Your task to perform on an android device: change the upload size in google photos Image 0: 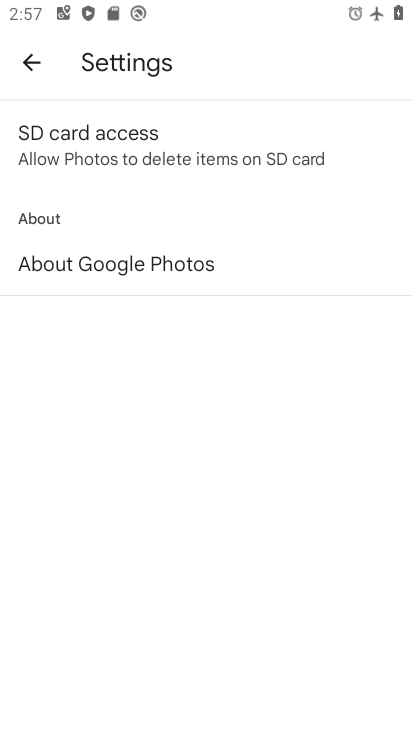
Step 0: press back button
Your task to perform on an android device: change the upload size in google photos Image 1: 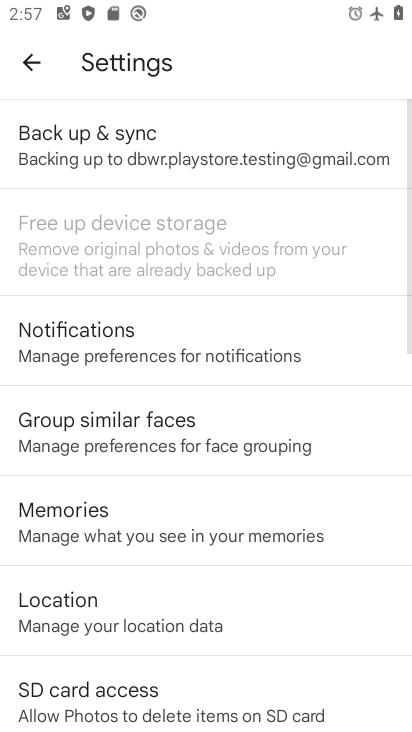
Step 1: press home button
Your task to perform on an android device: change the upload size in google photos Image 2: 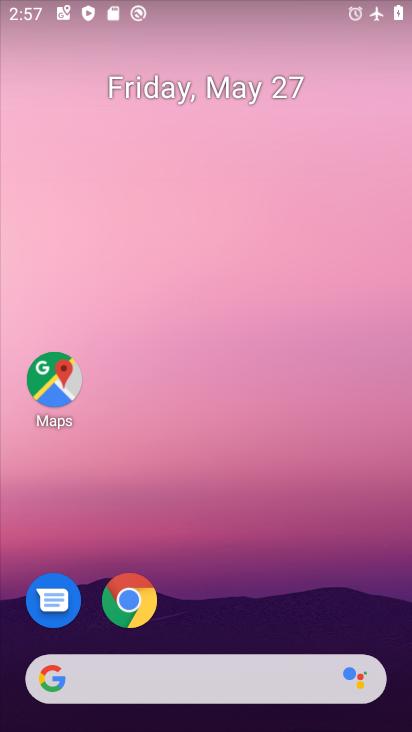
Step 2: drag from (267, 616) to (178, 56)
Your task to perform on an android device: change the upload size in google photos Image 3: 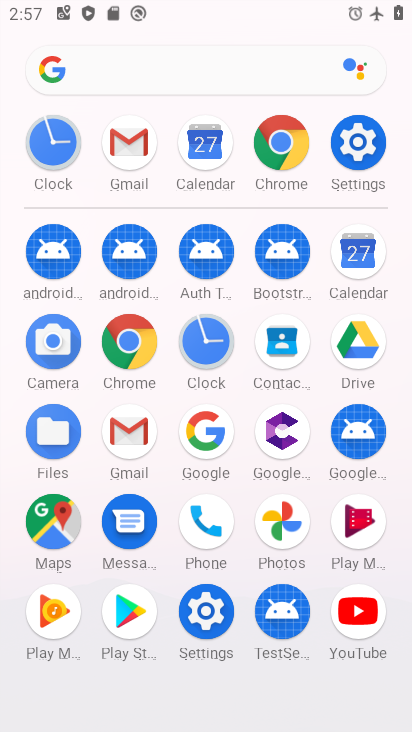
Step 3: drag from (16, 525) to (21, 225)
Your task to perform on an android device: change the upload size in google photos Image 4: 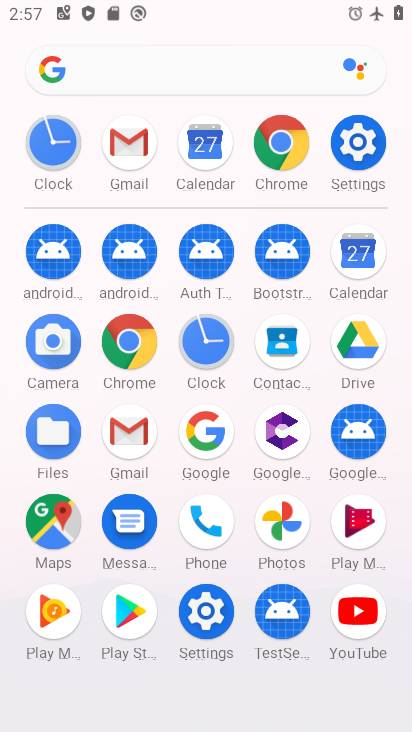
Step 4: click (283, 524)
Your task to perform on an android device: change the upload size in google photos Image 5: 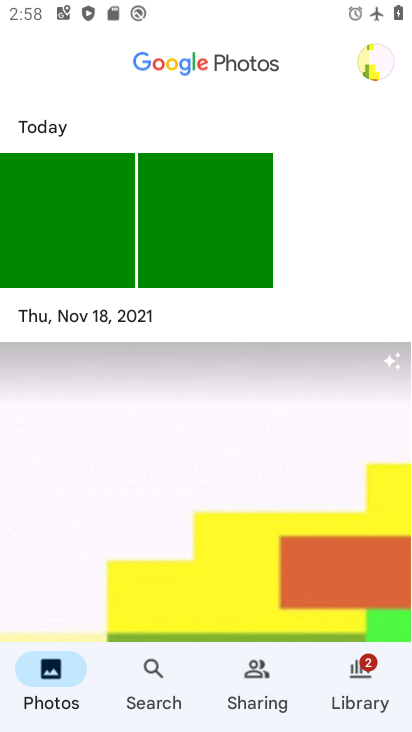
Step 5: click (370, 68)
Your task to perform on an android device: change the upload size in google photos Image 6: 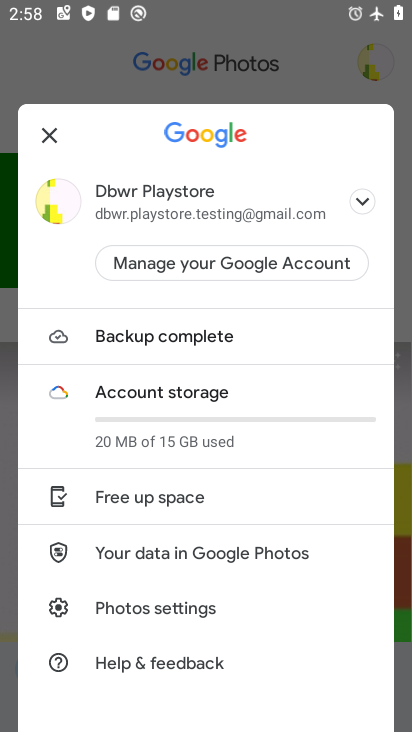
Step 6: click (125, 614)
Your task to perform on an android device: change the upload size in google photos Image 7: 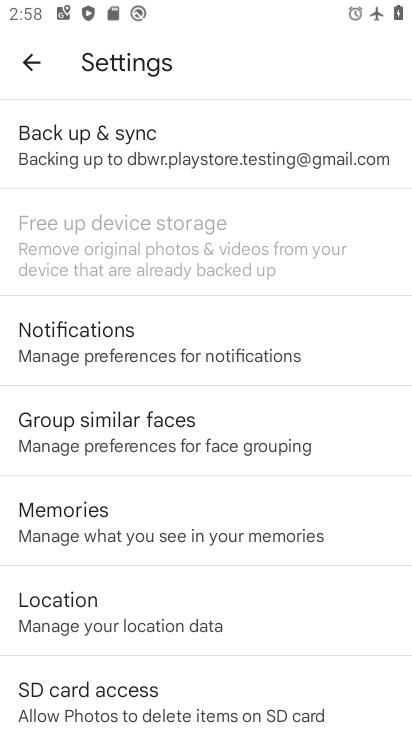
Step 7: drag from (178, 558) to (246, 156)
Your task to perform on an android device: change the upload size in google photos Image 8: 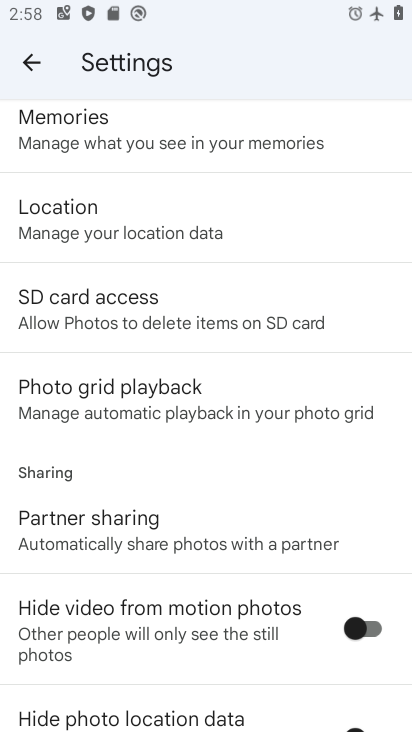
Step 8: drag from (204, 595) to (246, 284)
Your task to perform on an android device: change the upload size in google photos Image 9: 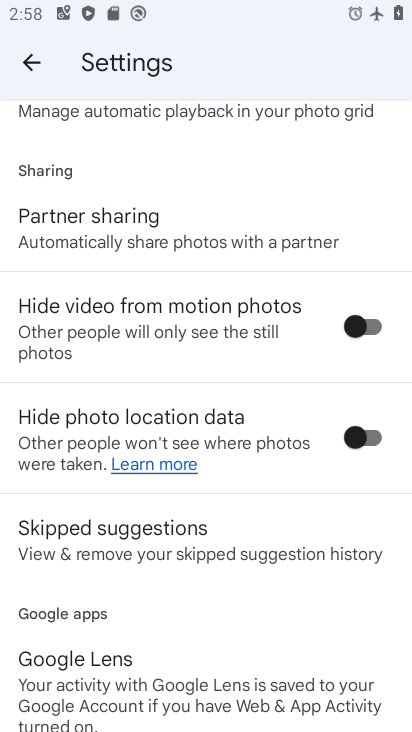
Step 9: drag from (210, 598) to (243, 232)
Your task to perform on an android device: change the upload size in google photos Image 10: 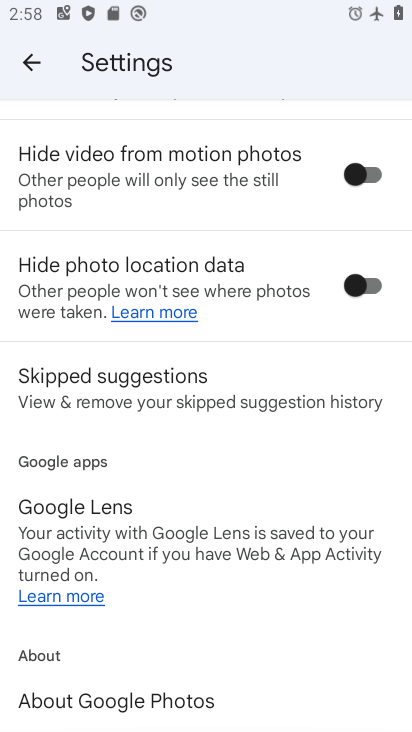
Step 10: drag from (245, 160) to (205, 669)
Your task to perform on an android device: change the upload size in google photos Image 11: 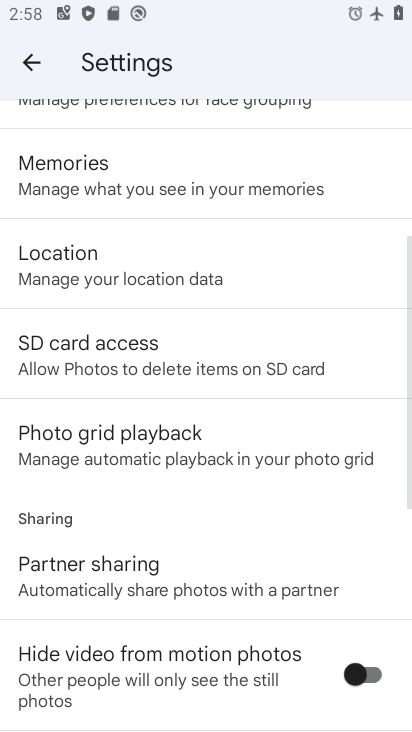
Step 11: drag from (234, 188) to (234, 623)
Your task to perform on an android device: change the upload size in google photos Image 12: 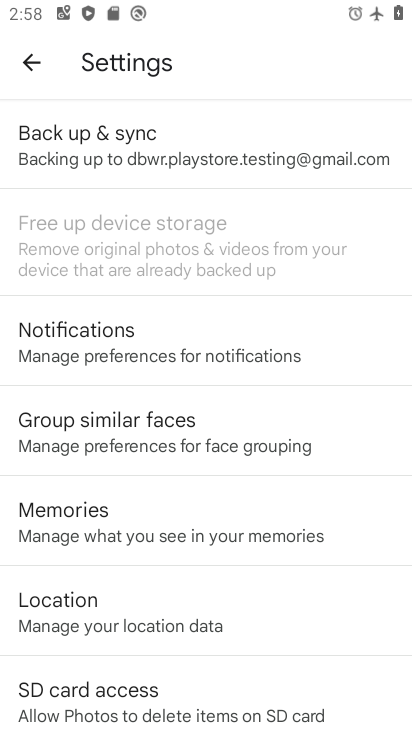
Step 12: drag from (252, 234) to (247, 633)
Your task to perform on an android device: change the upload size in google photos Image 13: 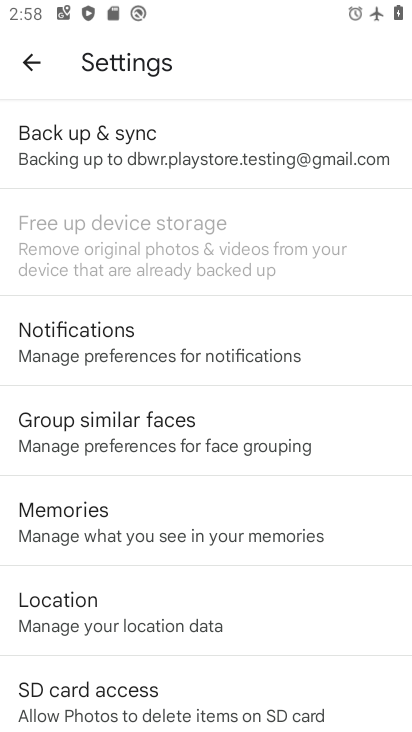
Step 13: click (199, 148)
Your task to perform on an android device: change the upload size in google photos Image 14: 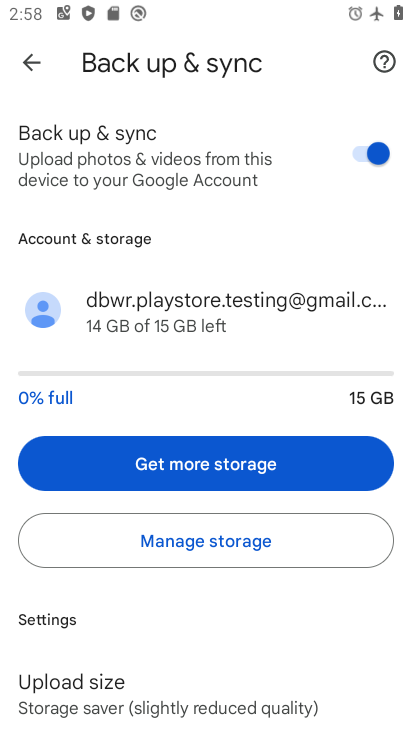
Step 14: drag from (208, 557) to (244, 151)
Your task to perform on an android device: change the upload size in google photos Image 15: 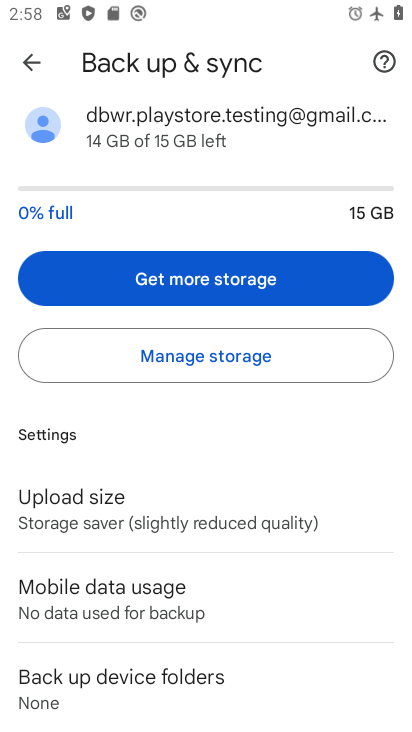
Step 15: drag from (260, 532) to (255, 92)
Your task to perform on an android device: change the upload size in google photos Image 16: 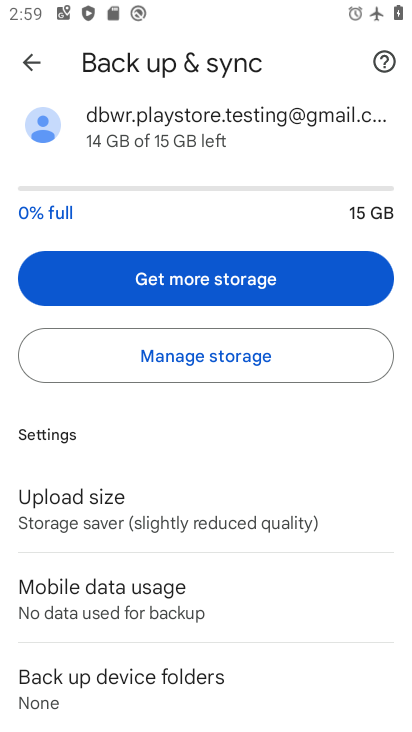
Step 16: click (164, 518)
Your task to perform on an android device: change the upload size in google photos Image 17: 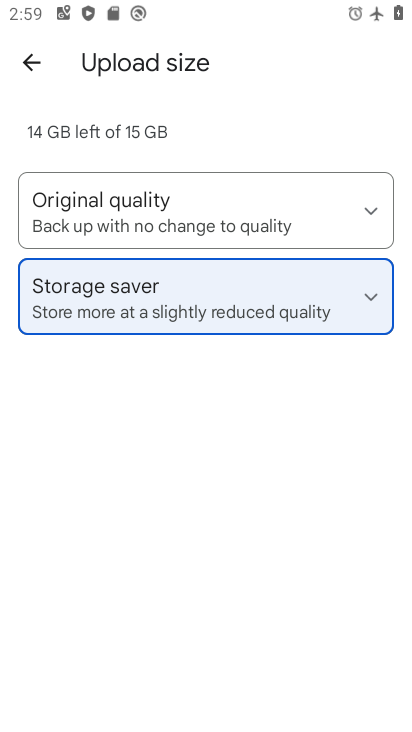
Step 17: click (309, 200)
Your task to perform on an android device: change the upload size in google photos Image 18: 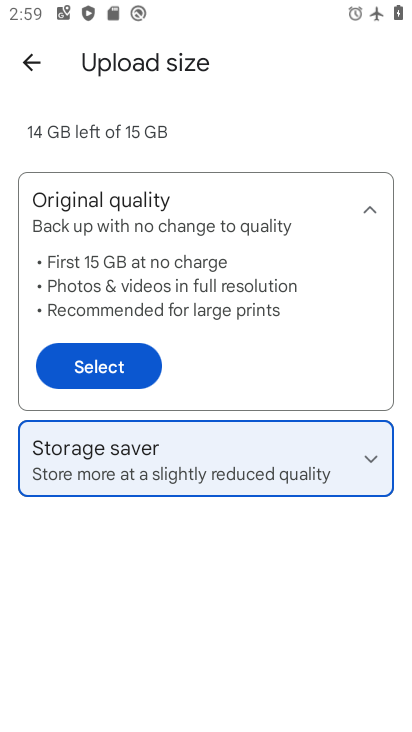
Step 18: click (117, 343)
Your task to perform on an android device: change the upload size in google photos Image 19: 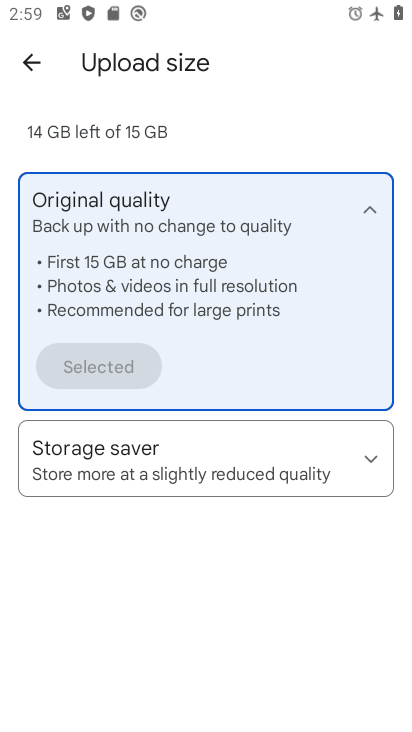
Step 19: task complete